Your task to perform on an android device: turn on bluetooth scan Image 0: 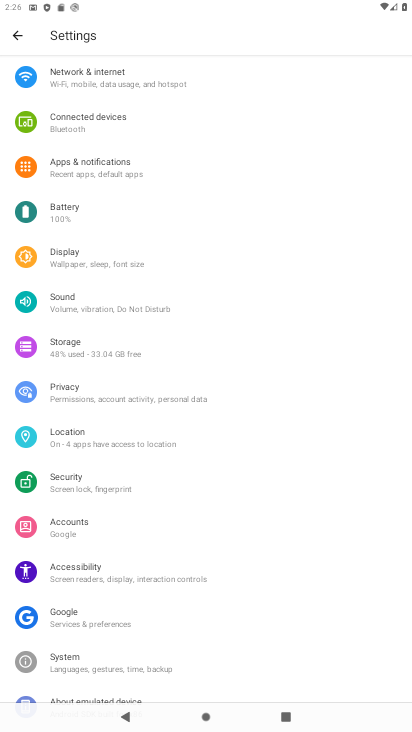
Step 0: click (111, 120)
Your task to perform on an android device: turn on bluetooth scan Image 1: 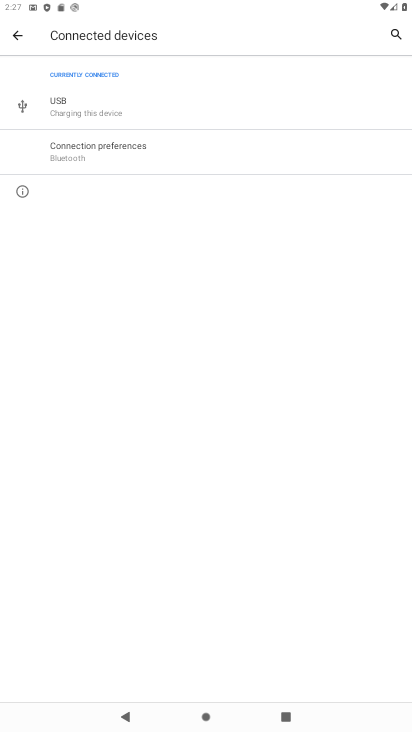
Step 1: task complete